Your task to perform on an android device: snooze an email in the gmail app Image 0: 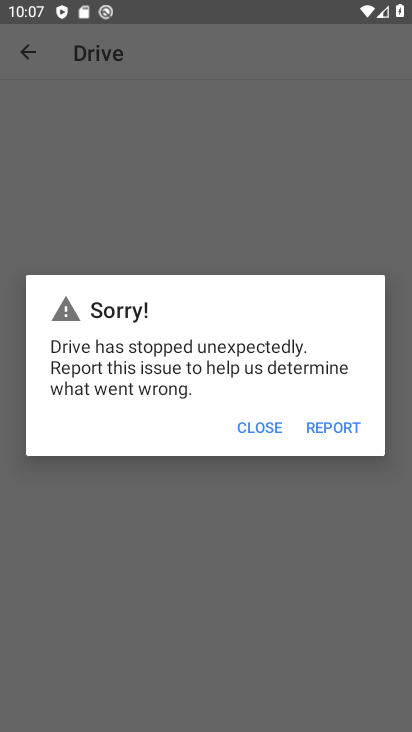
Step 0: press home button
Your task to perform on an android device: snooze an email in the gmail app Image 1: 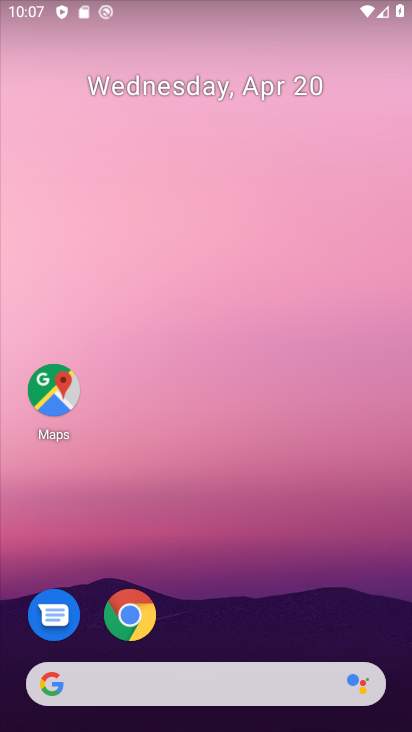
Step 1: drag from (283, 516) to (237, 251)
Your task to perform on an android device: snooze an email in the gmail app Image 2: 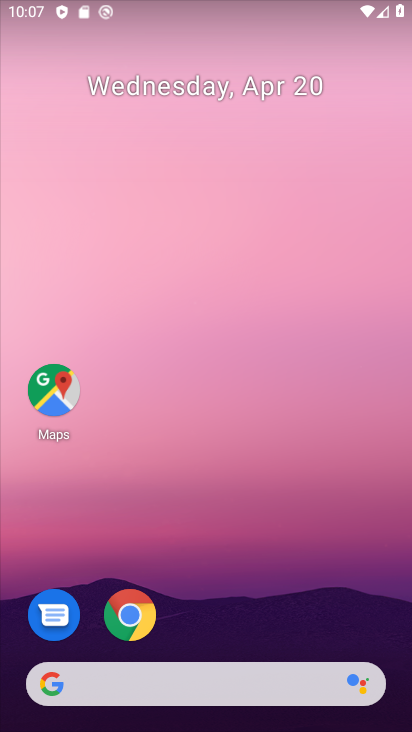
Step 2: drag from (260, 583) to (199, 81)
Your task to perform on an android device: snooze an email in the gmail app Image 3: 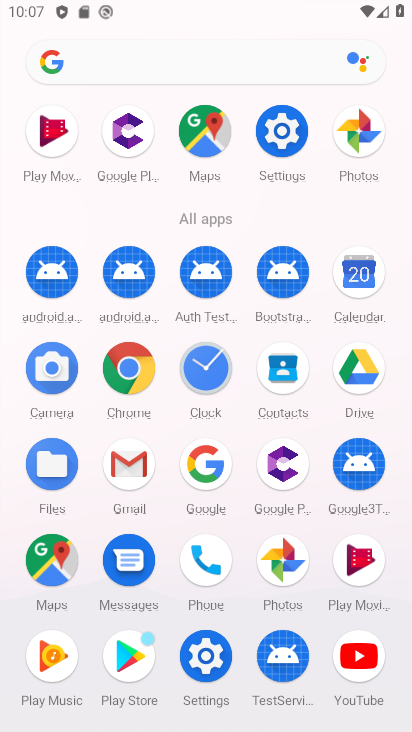
Step 3: click (138, 466)
Your task to perform on an android device: snooze an email in the gmail app Image 4: 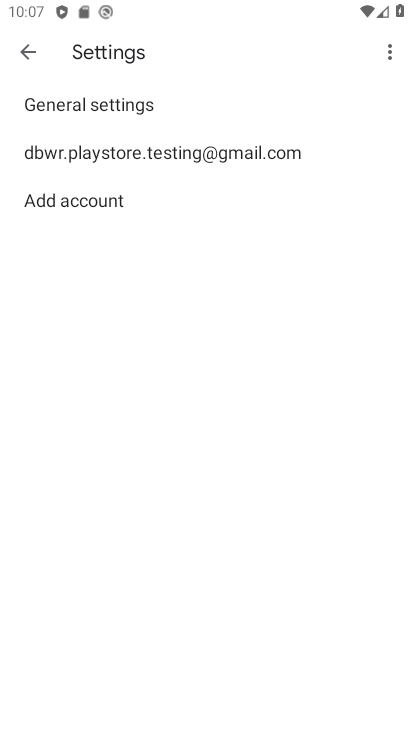
Step 4: click (19, 43)
Your task to perform on an android device: snooze an email in the gmail app Image 5: 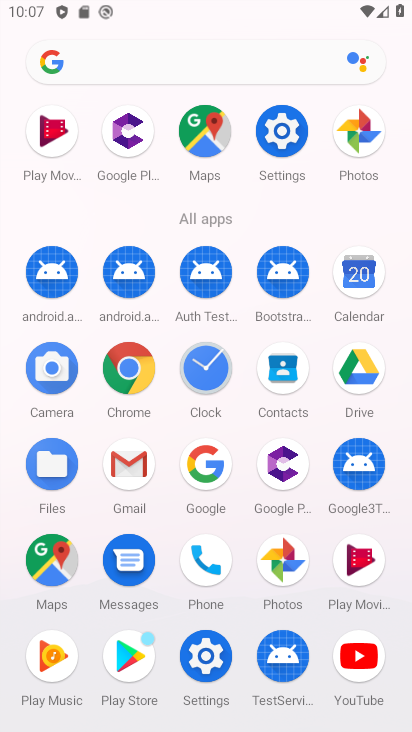
Step 5: click (136, 455)
Your task to perform on an android device: snooze an email in the gmail app Image 6: 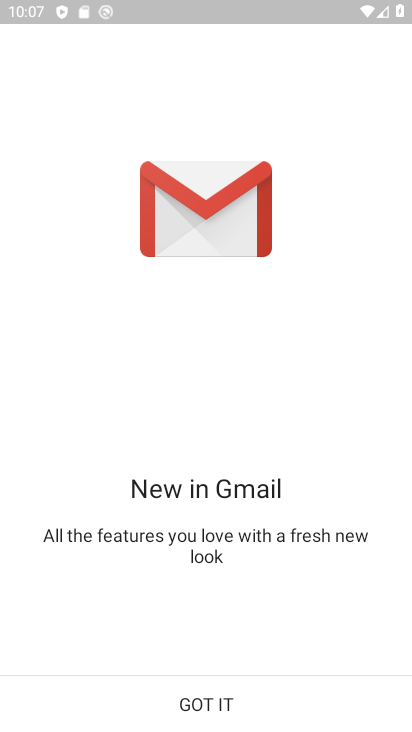
Step 6: click (201, 695)
Your task to perform on an android device: snooze an email in the gmail app Image 7: 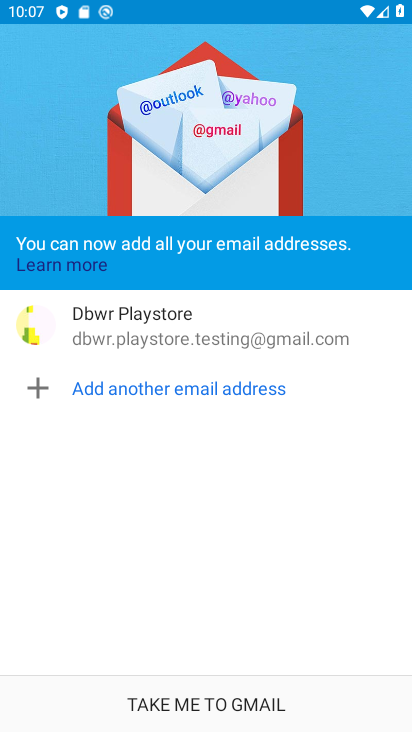
Step 7: click (235, 696)
Your task to perform on an android device: snooze an email in the gmail app Image 8: 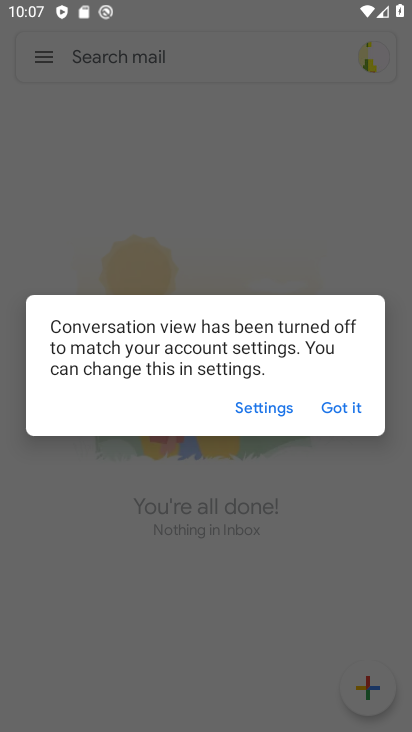
Step 8: click (346, 399)
Your task to perform on an android device: snooze an email in the gmail app Image 9: 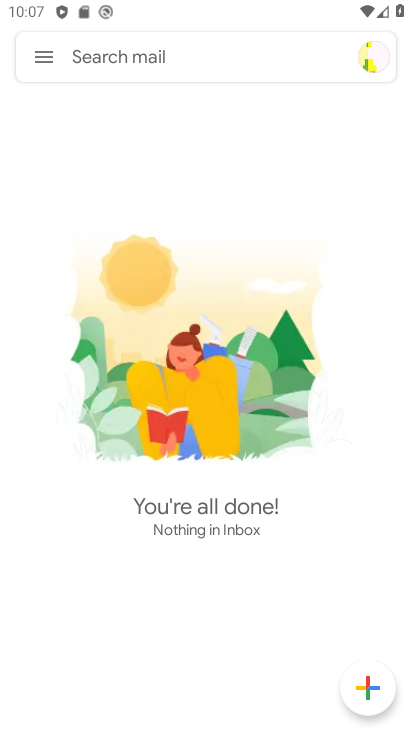
Step 9: click (41, 53)
Your task to perform on an android device: snooze an email in the gmail app Image 10: 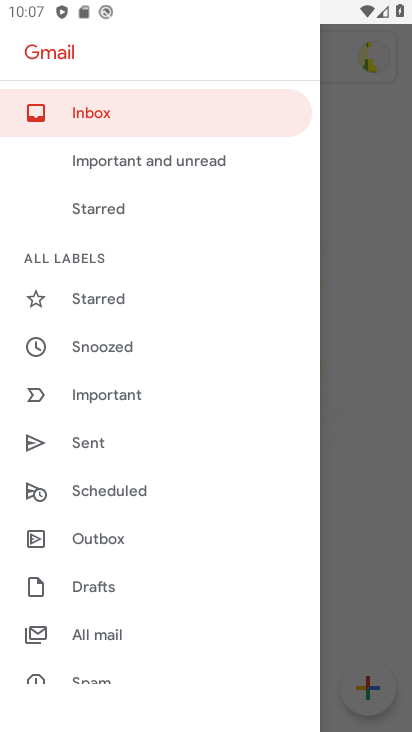
Step 10: drag from (210, 608) to (212, 300)
Your task to perform on an android device: snooze an email in the gmail app Image 11: 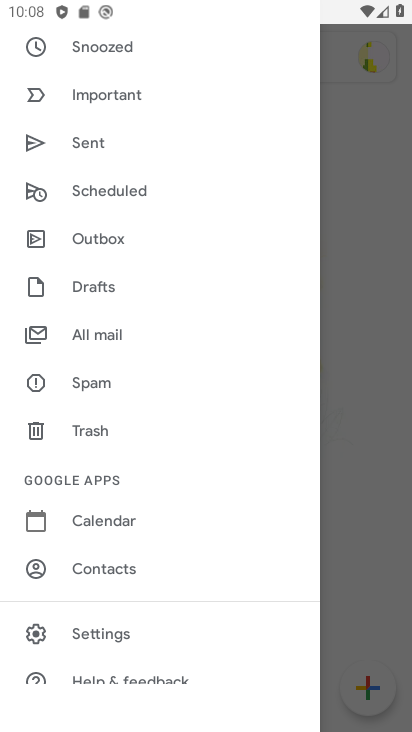
Step 11: click (106, 339)
Your task to perform on an android device: snooze an email in the gmail app Image 12: 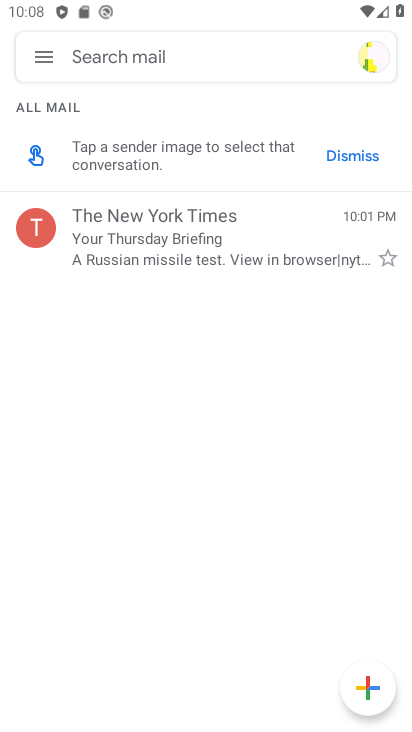
Step 12: click (289, 249)
Your task to perform on an android device: snooze an email in the gmail app Image 13: 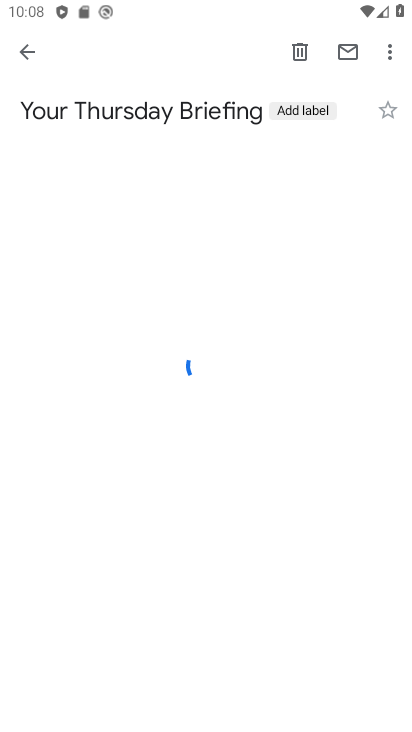
Step 13: click (390, 50)
Your task to perform on an android device: snooze an email in the gmail app Image 14: 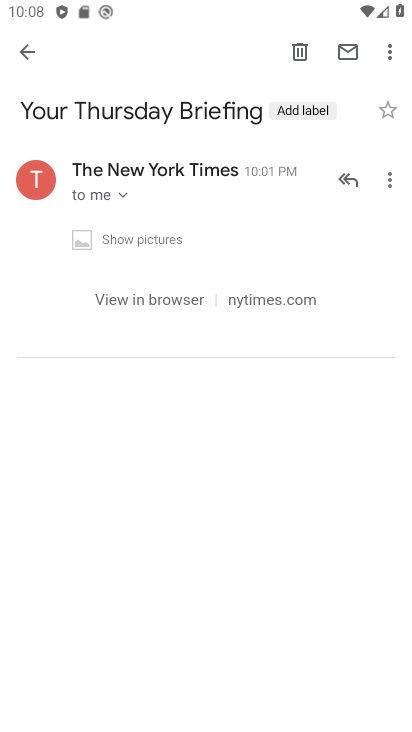
Step 14: click (390, 50)
Your task to perform on an android device: snooze an email in the gmail app Image 15: 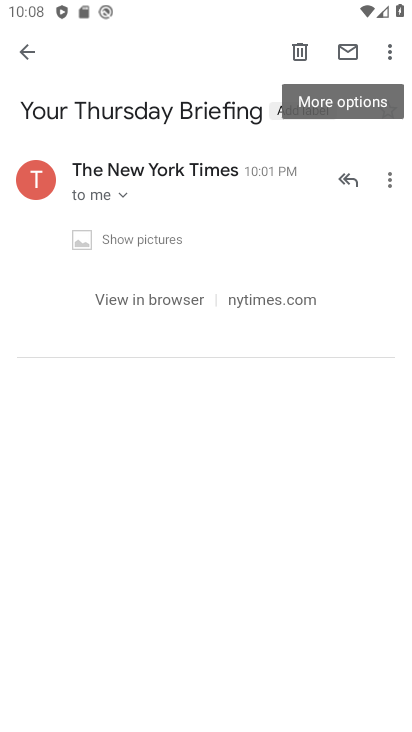
Step 15: click (390, 50)
Your task to perform on an android device: snooze an email in the gmail app Image 16: 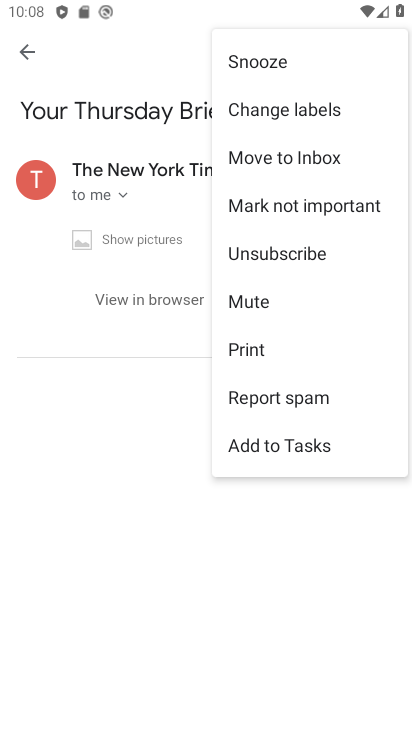
Step 16: click (272, 56)
Your task to perform on an android device: snooze an email in the gmail app Image 17: 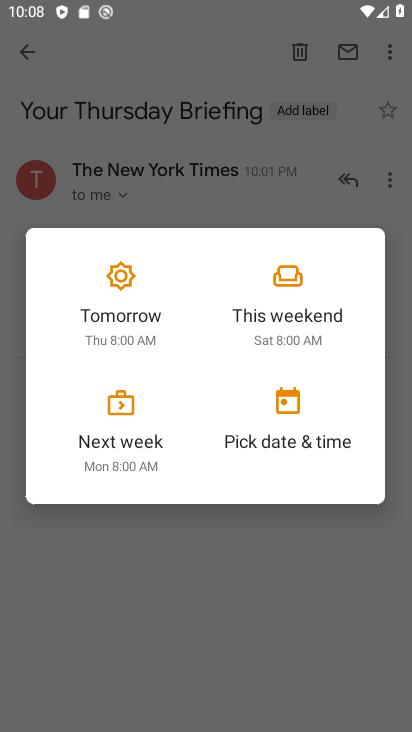
Step 17: click (285, 292)
Your task to perform on an android device: snooze an email in the gmail app Image 18: 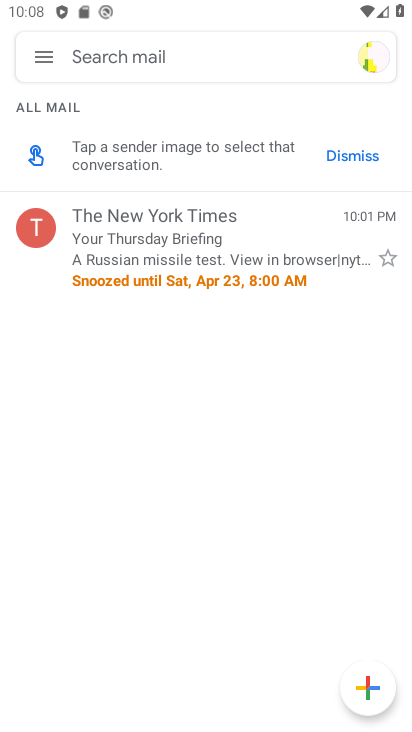
Step 18: task complete